Your task to perform on an android device: Open ESPN.com Image 0: 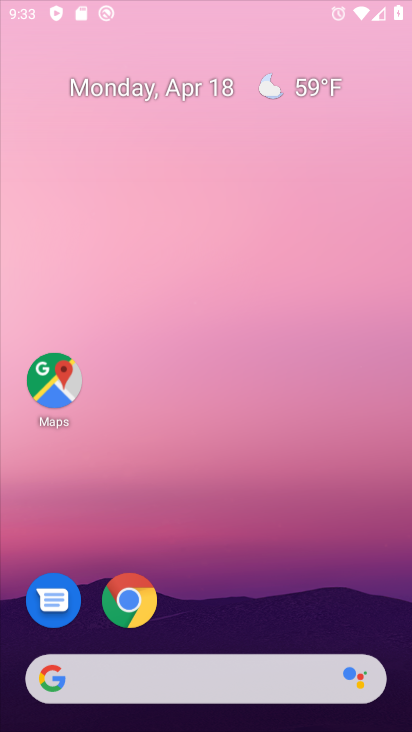
Step 0: drag from (205, 468) to (115, 18)
Your task to perform on an android device: Open ESPN.com Image 1: 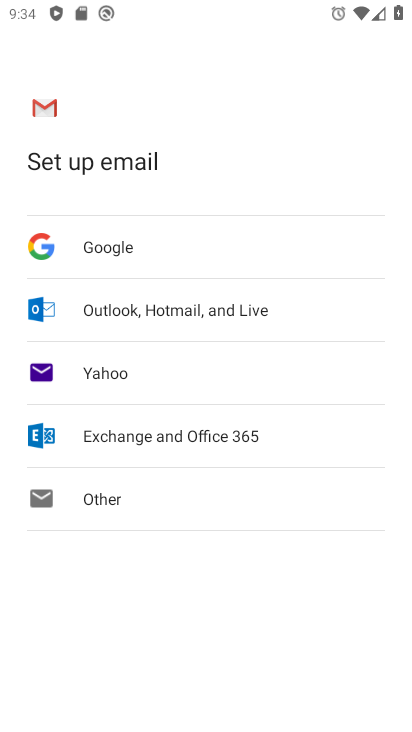
Step 1: press home button
Your task to perform on an android device: Open ESPN.com Image 2: 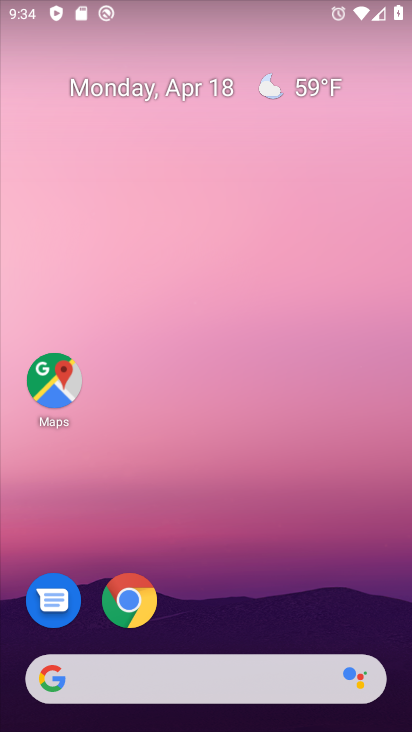
Step 2: click (135, 601)
Your task to perform on an android device: Open ESPN.com Image 3: 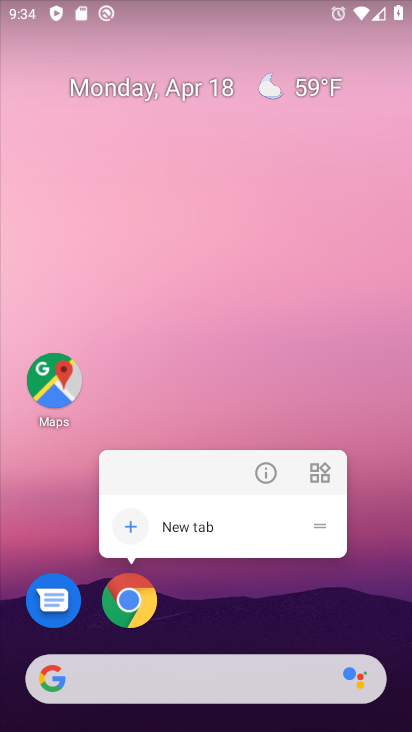
Step 3: click (136, 604)
Your task to perform on an android device: Open ESPN.com Image 4: 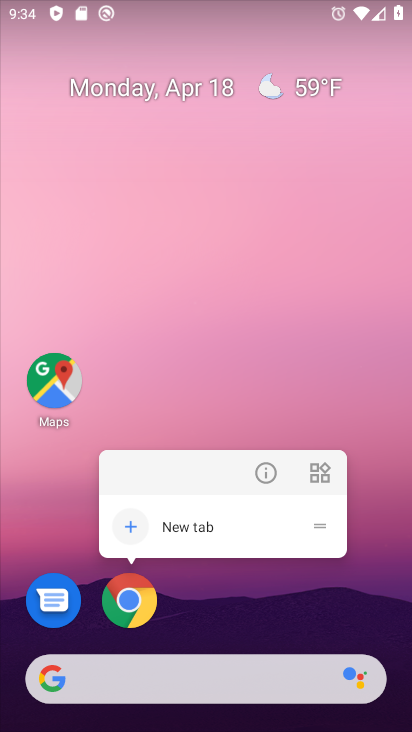
Step 4: drag from (168, 25) to (231, 6)
Your task to perform on an android device: Open ESPN.com Image 5: 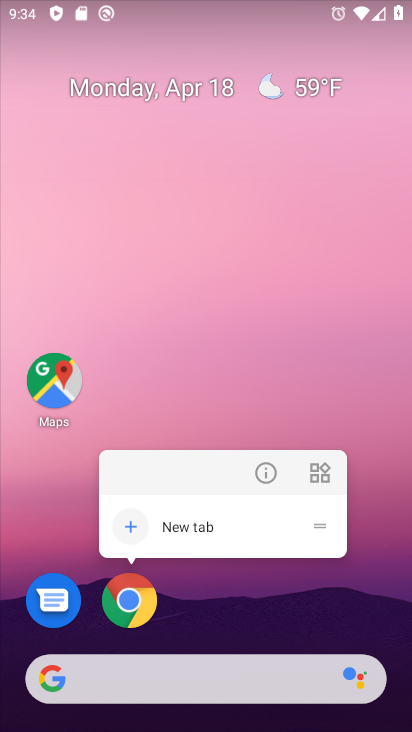
Step 5: click (277, 312)
Your task to perform on an android device: Open ESPN.com Image 6: 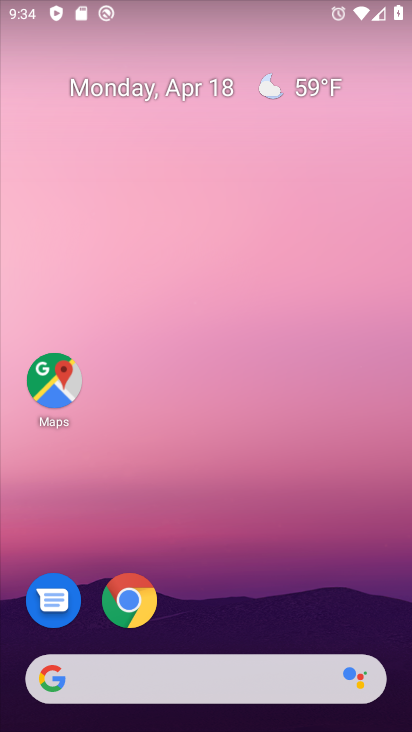
Step 6: drag from (194, 600) to (182, 13)
Your task to perform on an android device: Open ESPN.com Image 7: 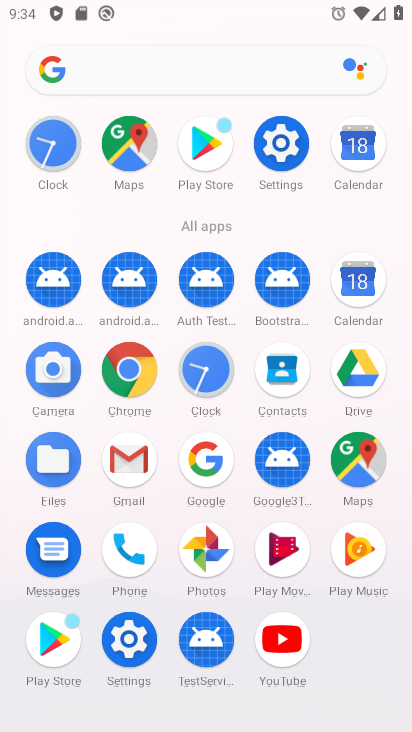
Step 7: click (125, 369)
Your task to perform on an android device: Open ESPN.com Image 8: 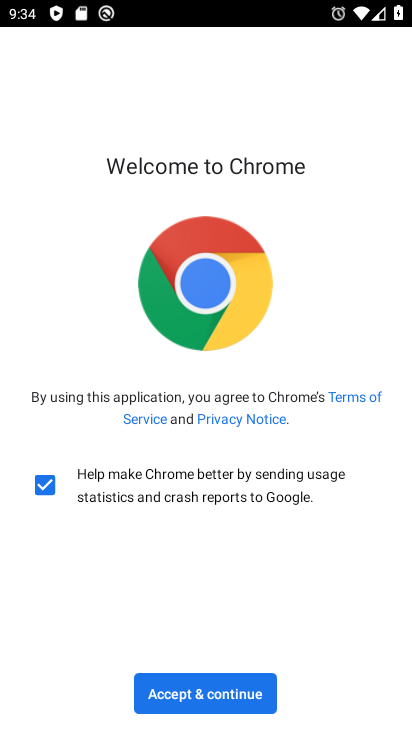
Step 8: click (208, 688)
Your task to perform on an android device: Open ESPN.com Image 9: 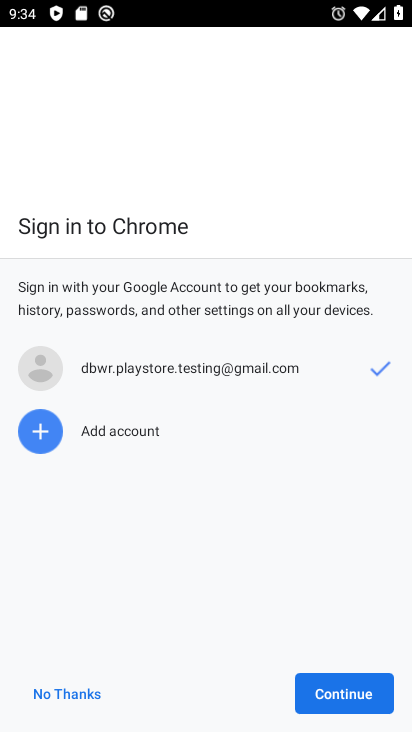
Step 9: click (331, 690)
Your task to perform on an android device: Open ESPN.com Image 10: 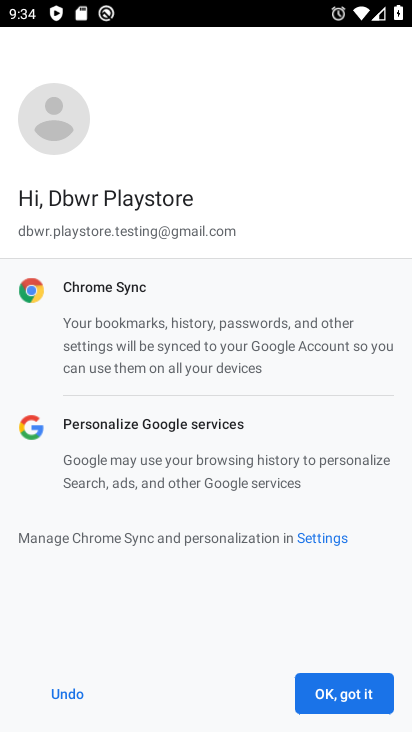
Step 10: click (325, 697)
Your task to perform on an android device: Open ESPN.com Image 11: 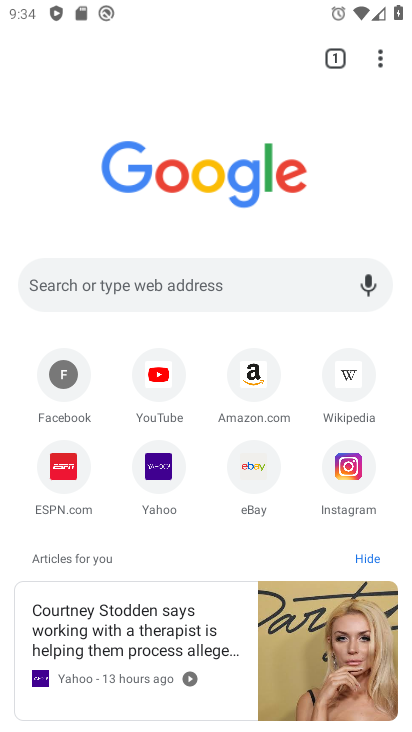
Step 11: click (53, 458)
Your task to perform on an android device: Open ESPN.com Image 12: 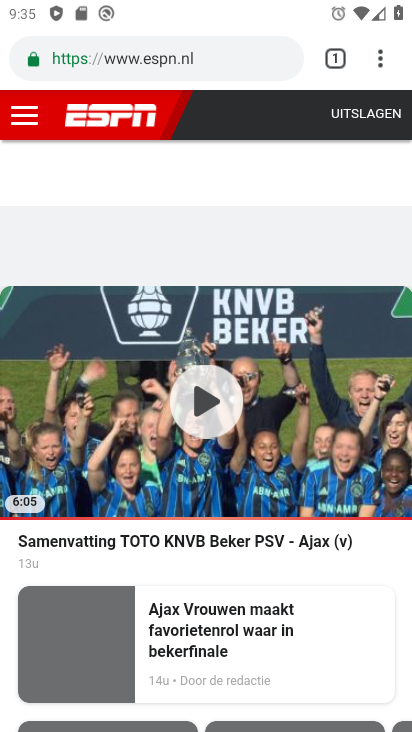
Step 12: task complete